Your task to perform on an android device: Go to accessibility settings Image 0: 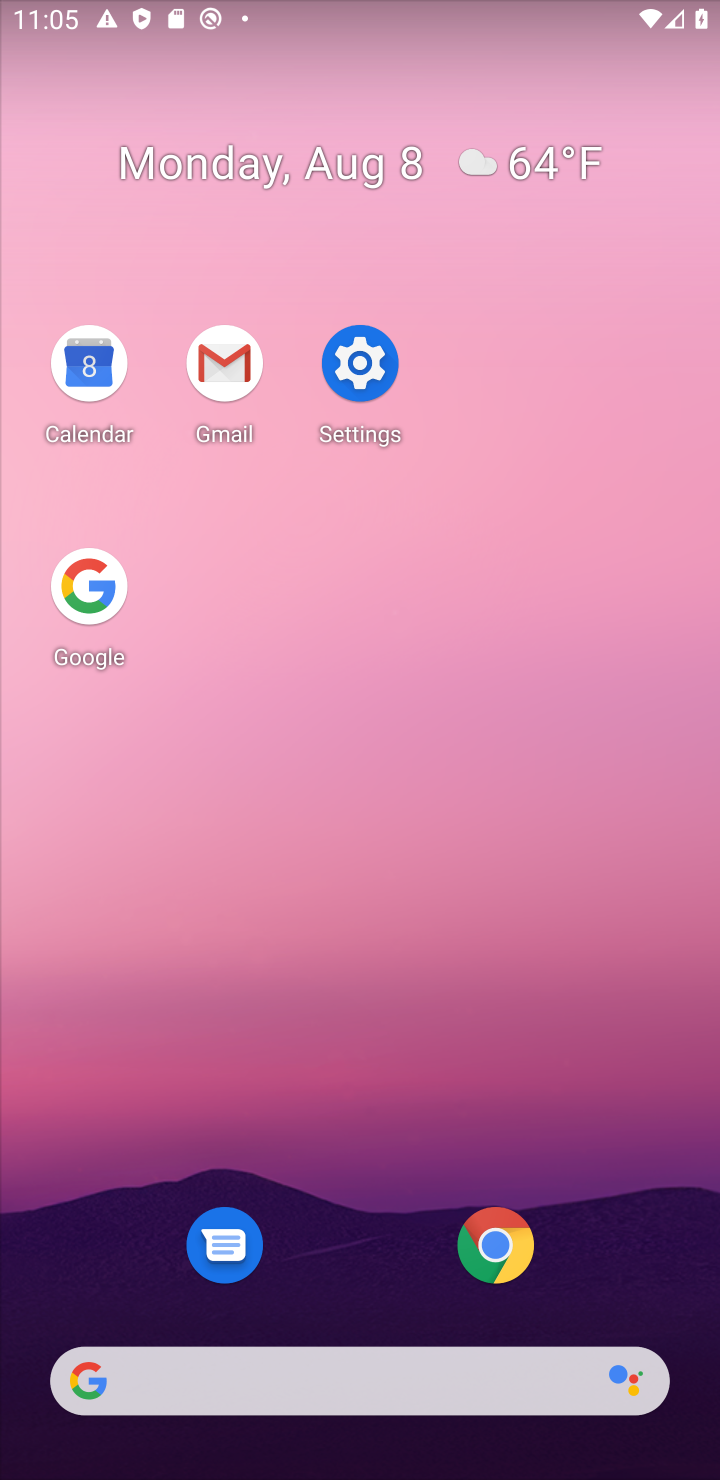
Step 0: click (367, 349)
Your task to perform on an android device: Go to accessibility settings Image 1: 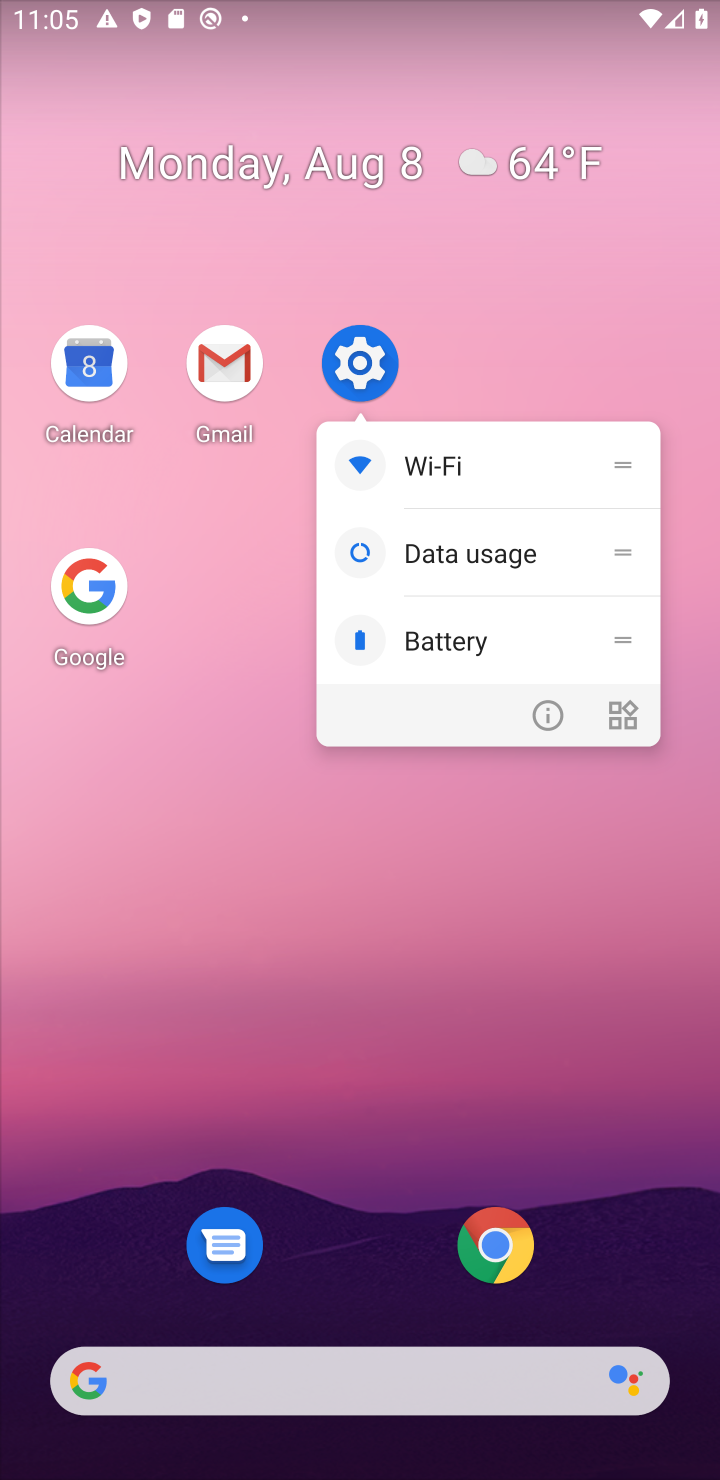
Step 1: click (367, 349)
Your task to perform on an android device: Go to accessibility settings Image 2: 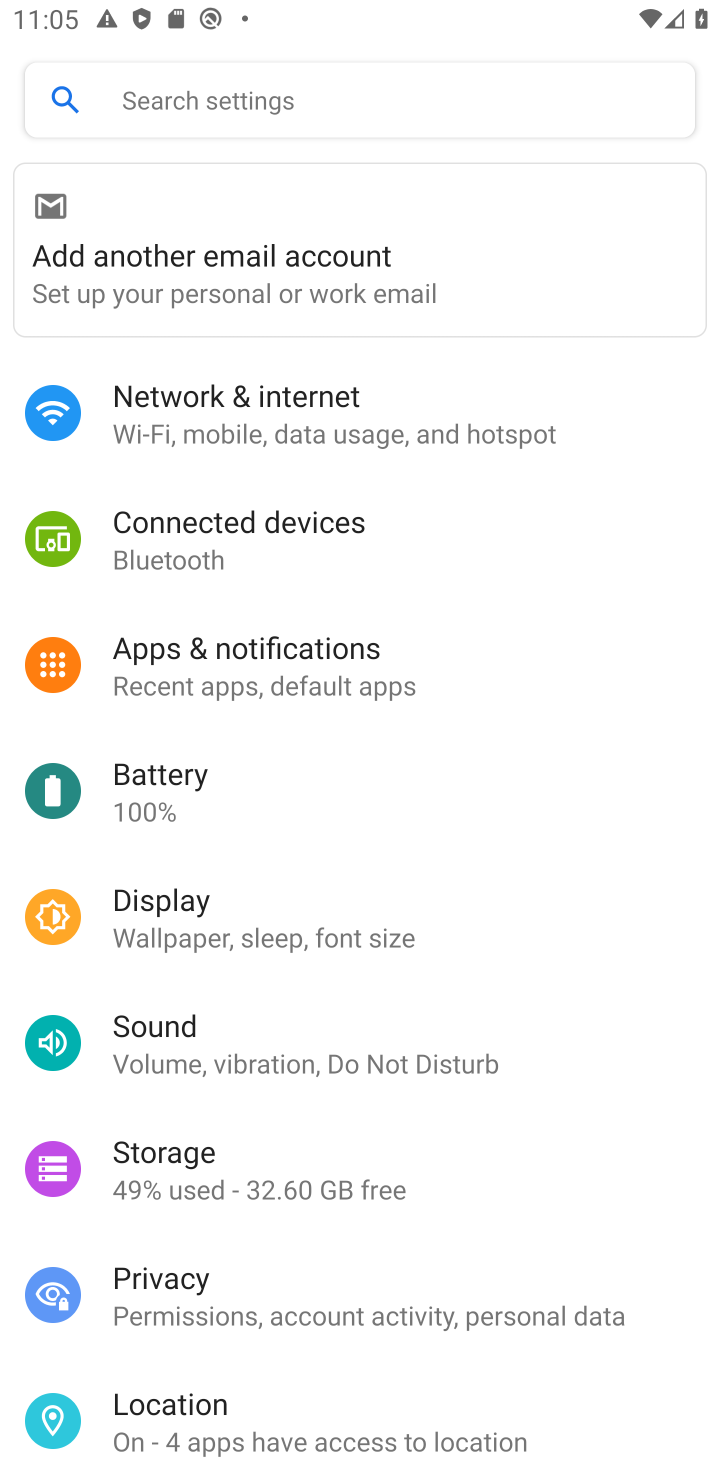
Step 2: drag from (458, 1229) to (388, 463)
Your task to perform on an android device: Go to accessibility settings Image 3: 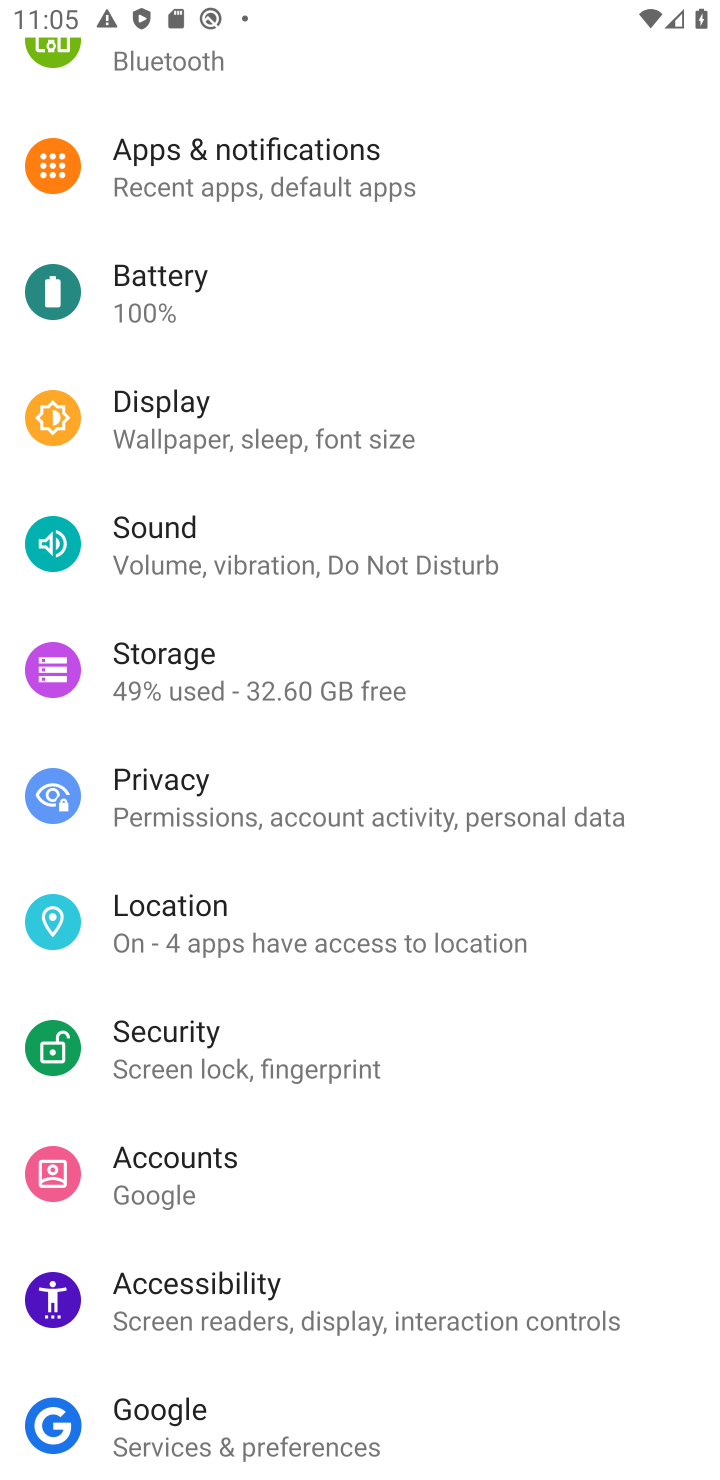
Step 3: click (325, 1313)
Your task to perform on an android device: Go to accessibility settings Image 4: 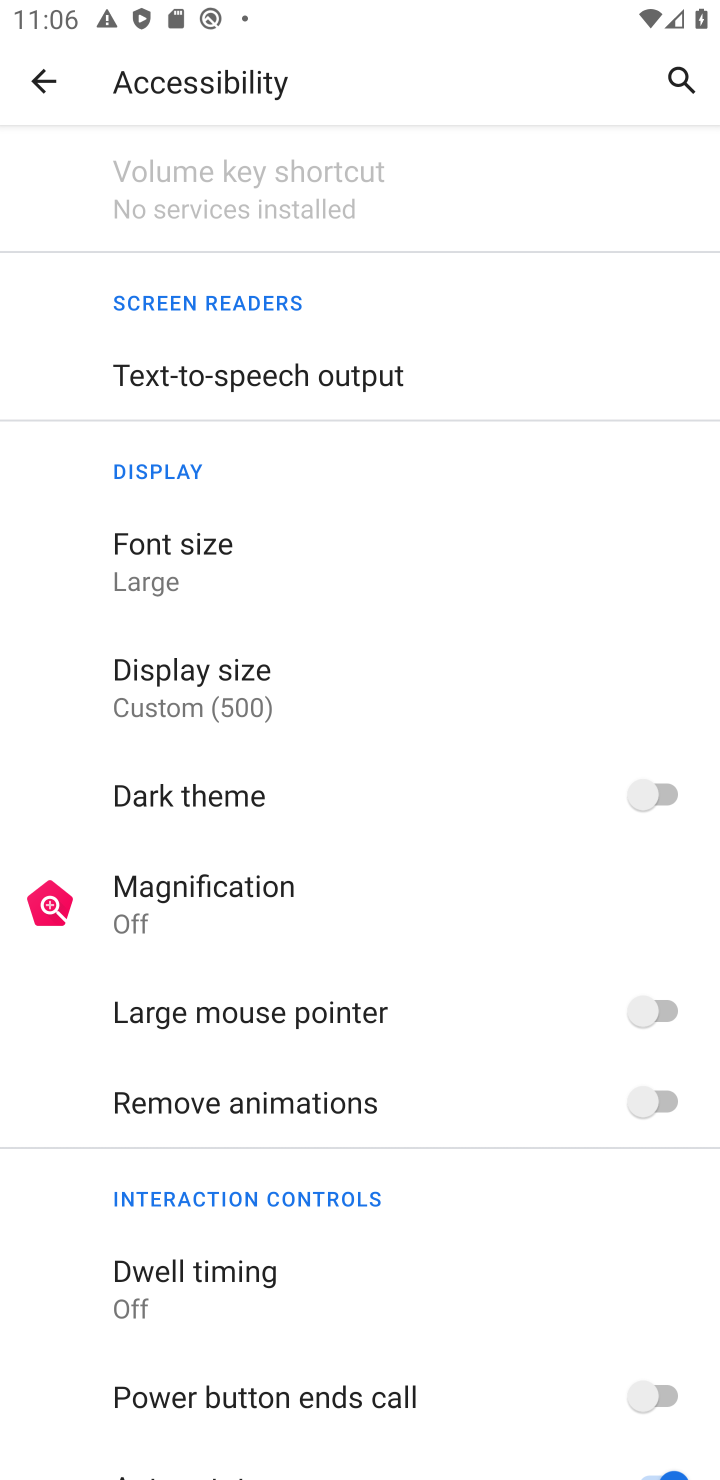
Step 4: task complete